Your task to perform on an android device: Open Amazon Image 0: 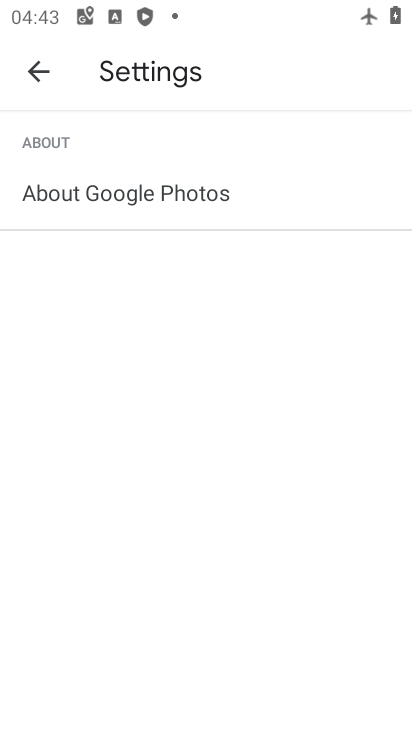
Step 0: click (323, 370)
Your task to perform on an android device: Open Amazon Image 1: 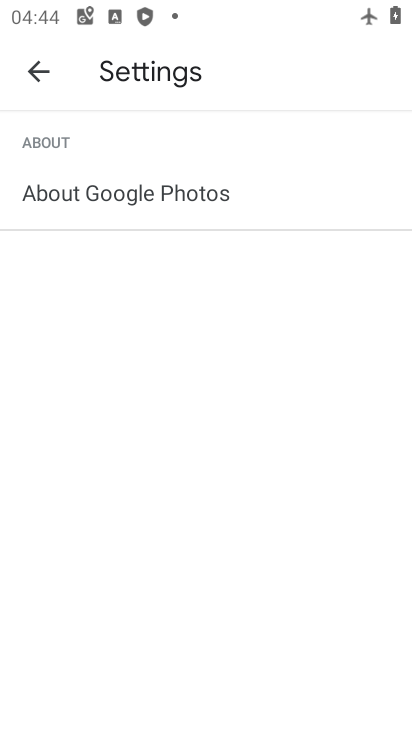
Step 1: press home button
Your task to perform on an android device: Open Amazon Image 2: 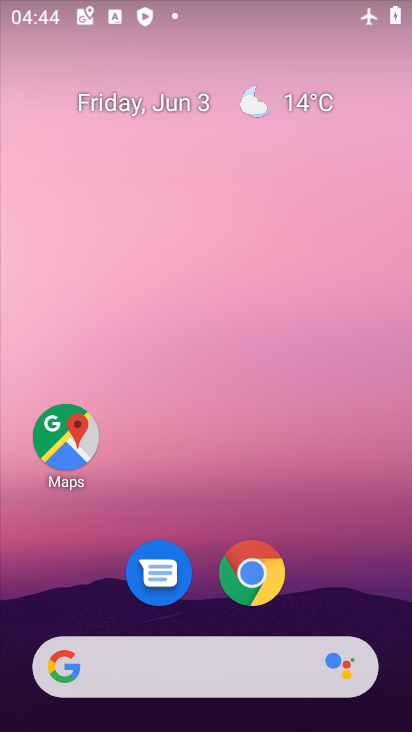
Step 2: drag from (326, 554) to (230, 0)
Your task to perform on an android device: Open Amazon Image 3: 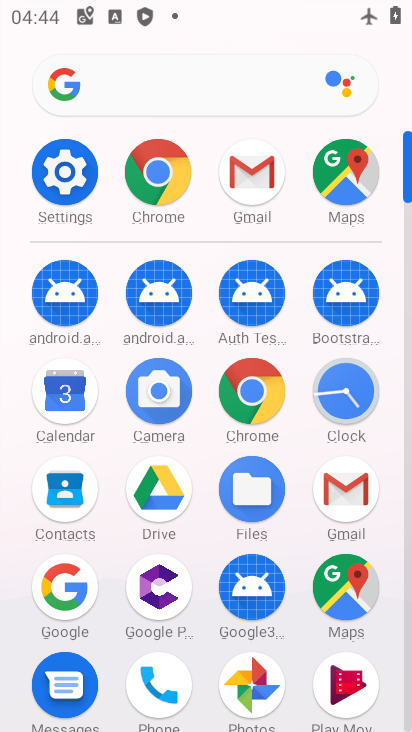
Step 3: click (173, 175)
Your task to perform on an android device: Open Amazon Image 4: 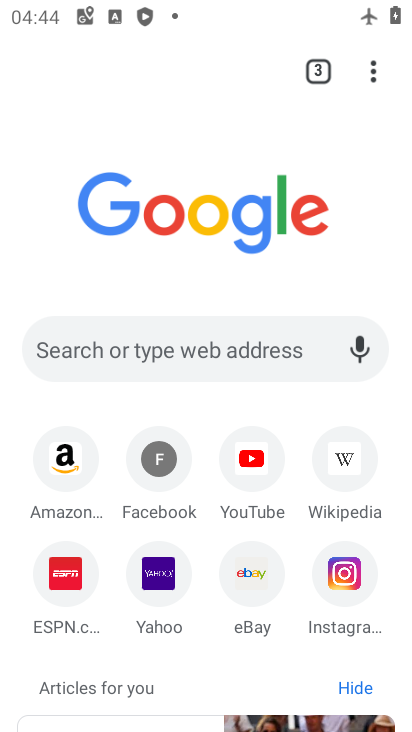
Step 4: click (205, 345)
Your task to perform on an android device: Open Amazon Image 5: 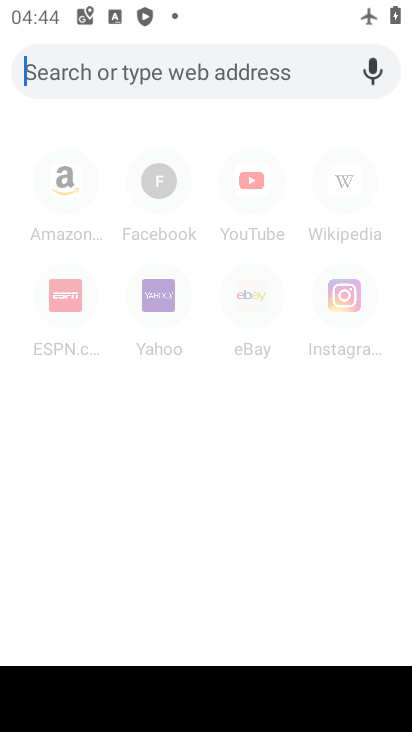
Step 5: type "amazon"
Your task to perform on an android device: Open Amazon Image 6: 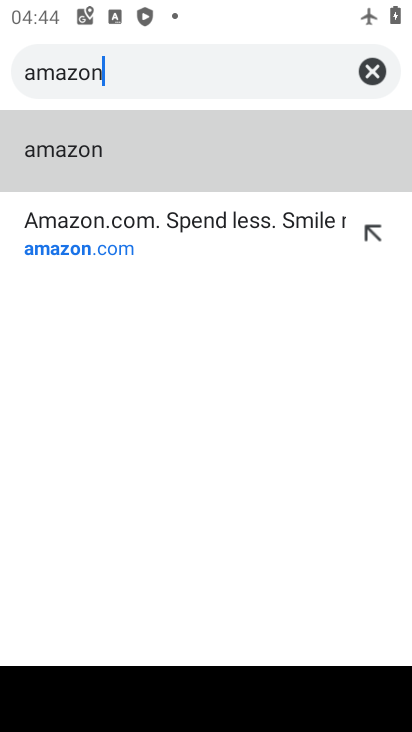
Step 6: click (178, 162)
Your task to perform on an android device: Open Amazon Image 7: 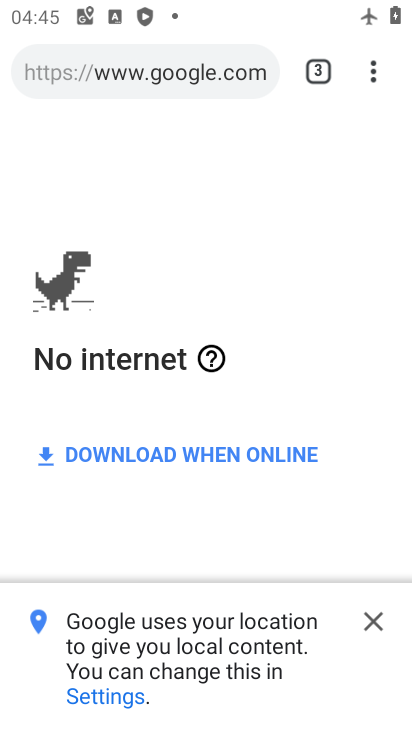
Step 7: task complete